Your task to perform on an android device: toggle translation in the chrome app Image 0: 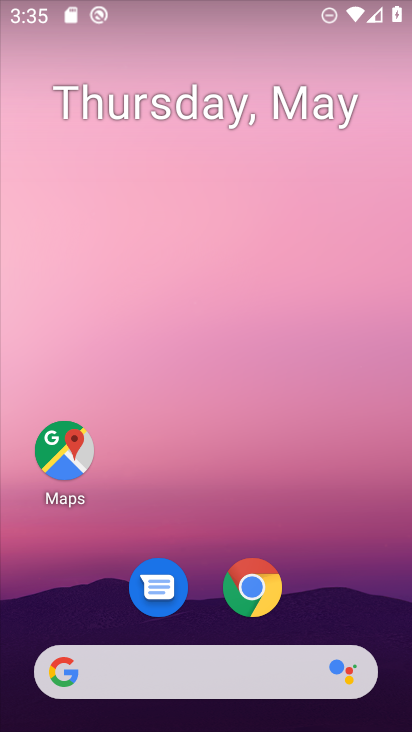
Step 0: drag from (385, 608) to (375, 202)
Your task to perform on an android device: toggle translation in the chrome app Image 1: 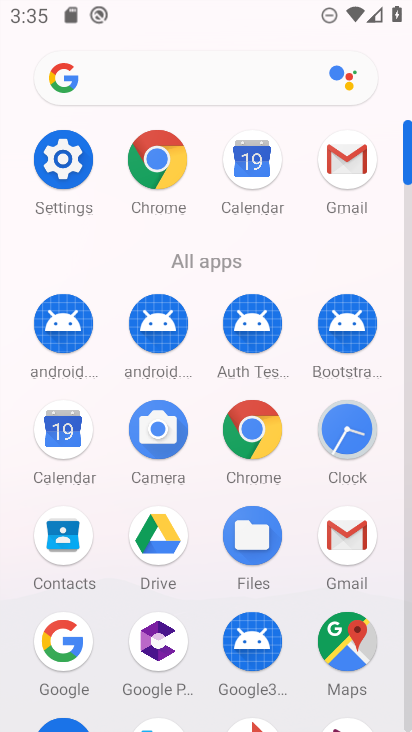
Step 1: click (253, 444)
Your task to perform on an android device: toggle translation in the chrome app Image 2: 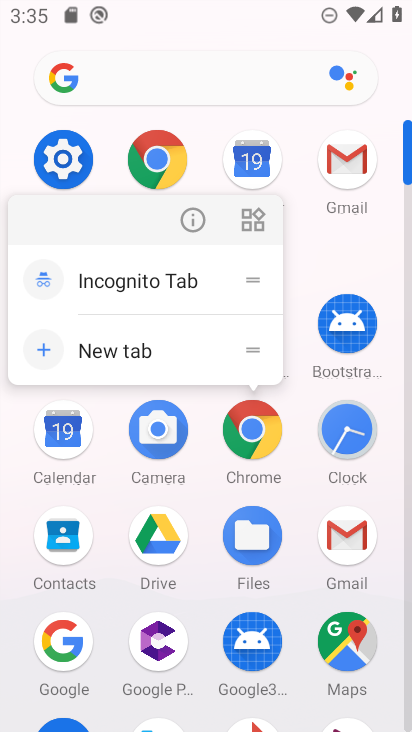
Step 2: click (253, 444)
Your task to perform on an android device: toggle translation in the chrome app Image 3: 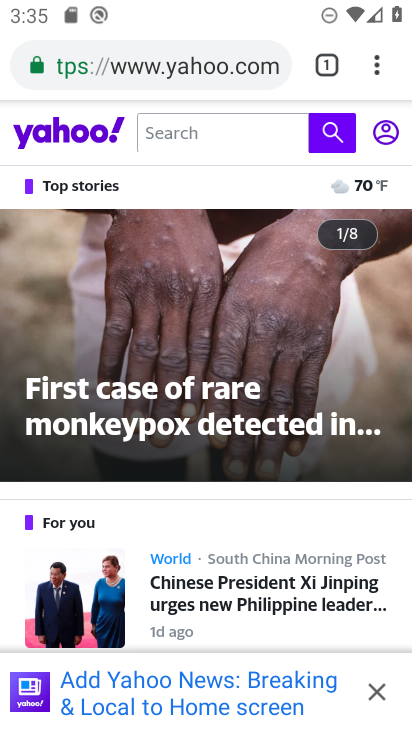
Step 3: click (374, 73)
Your task to perform on an android device: toggle translation in the chrome app Image 4: 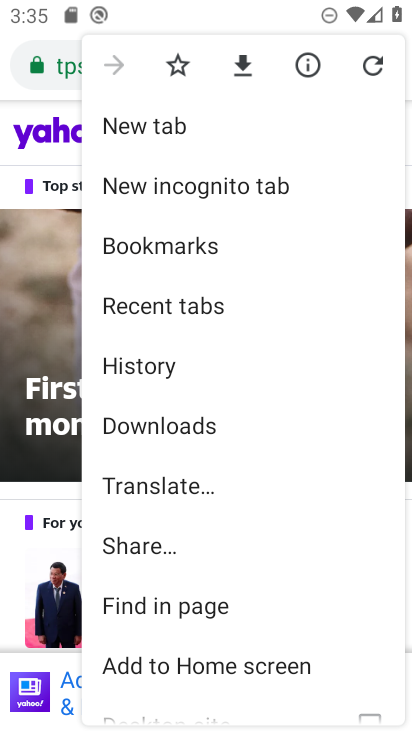
Step 4: drag from (341, 528) to (348, 411)
Your task to perform on an android device: toggle translation in the chrome app Image 5: 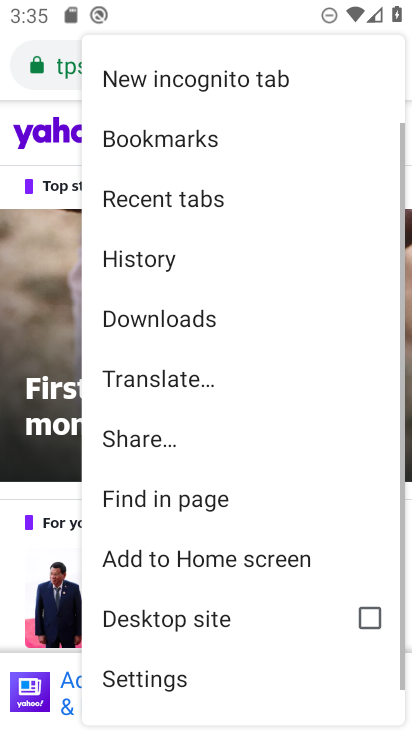
Step 5: drag from (316, 622) to (333, 472)
Your task to perform on an android device: toggle translation in the chrome app Image 6: 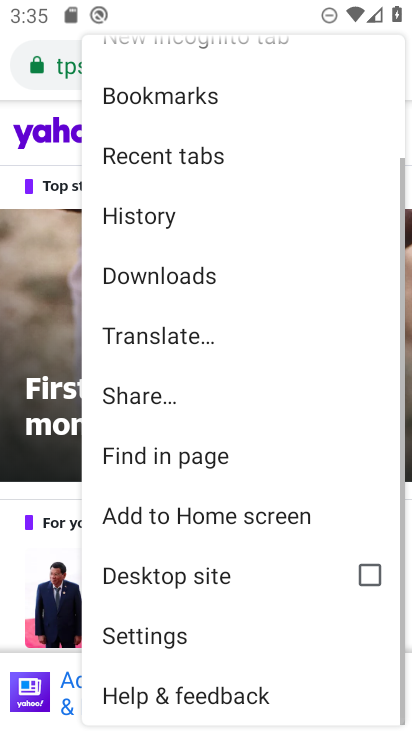
Step 6: click (229, 637)
Your task to perform on an android device: toggle translation in the chrome app Image 7: 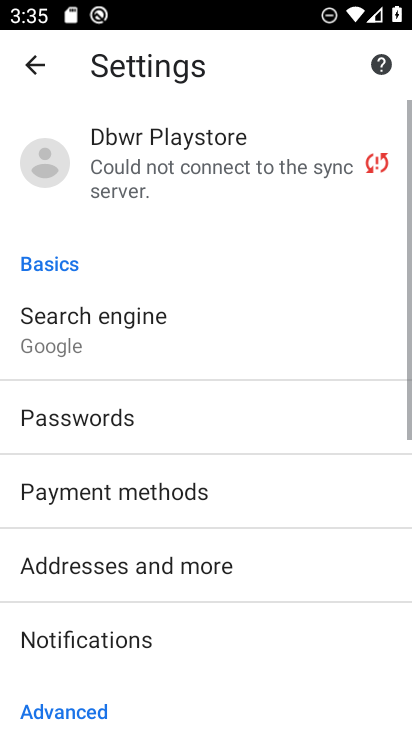
Step 7: drag from (274, 642) to (289, 473)
Your task to perform on an android device: toggle translation in the chrome app Image 8: 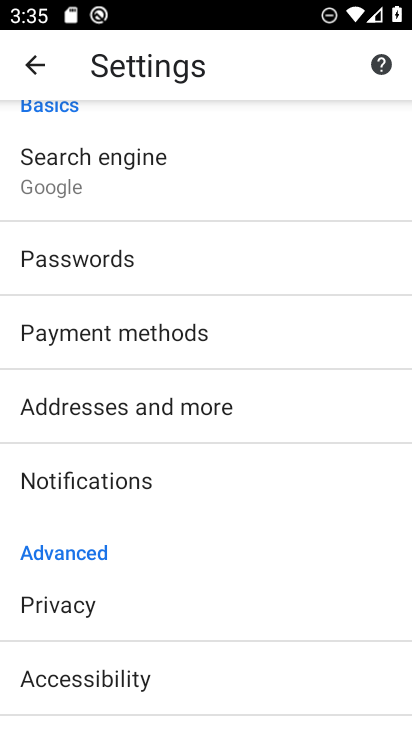
Step 8: drag from (281, 637) to (287, 480)
Your task to perform on an android device: toggle translation in the chrome app Image 9: 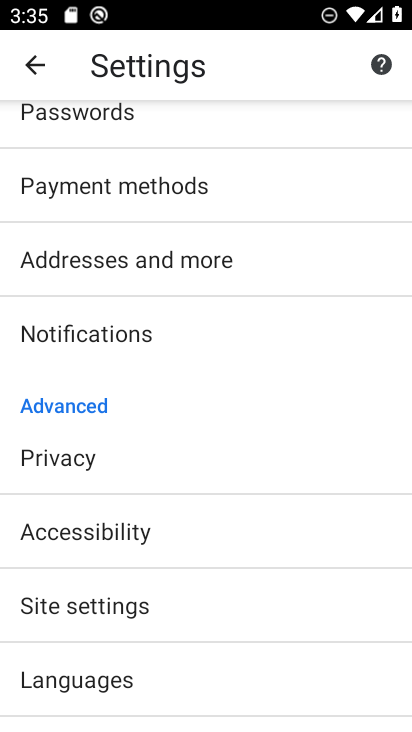
Step 9: drag from (279, 631) to (276, 526)
Your task to perform on an android device: toggle translation in the chrome app Image 10: 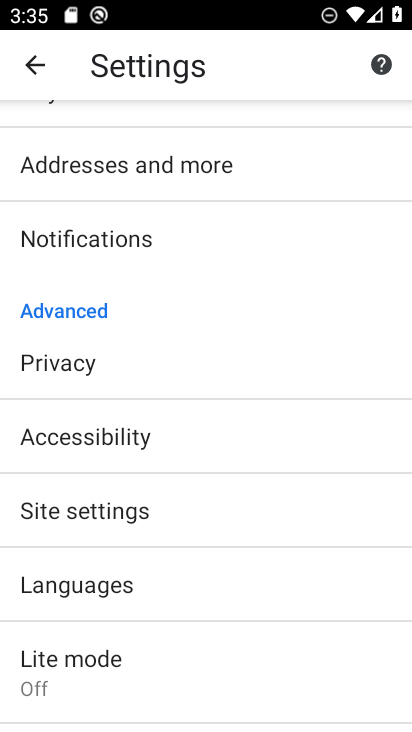
Step 10: drag from (274, 643) to (283, 541)
Your task to perform on an android device: toggle translation in the chrome app Image 11: 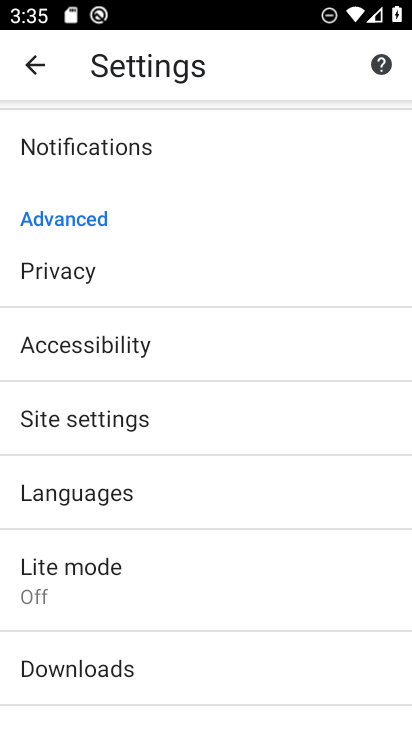
Step 11: drag from (295, 669) to (303, 553)
Your task to perform on an android device: toggle translation in the chrome app Image 12: 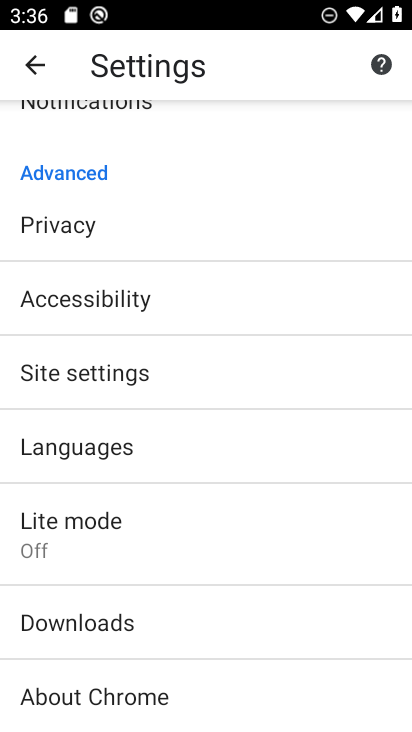
Step 12: drag from (305, 658) to (315, 471)
Your task to perform on an android device: toggle translation in the chrome app Image 13: 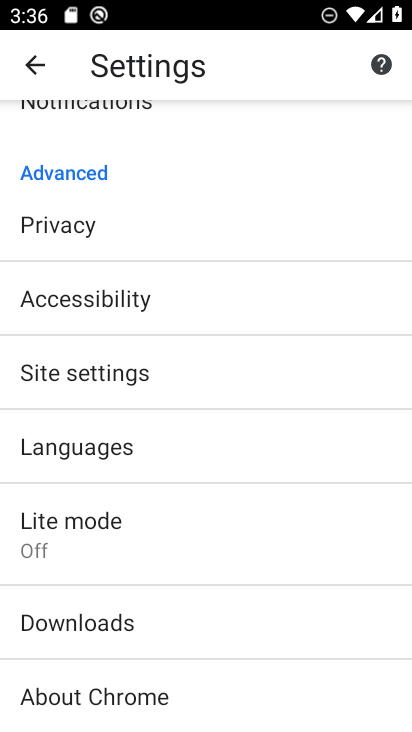
Step 13: drag from (348, 396) to (348, 495)
Your task to perform on an android device: toggle translation in the chrome app Image 14: 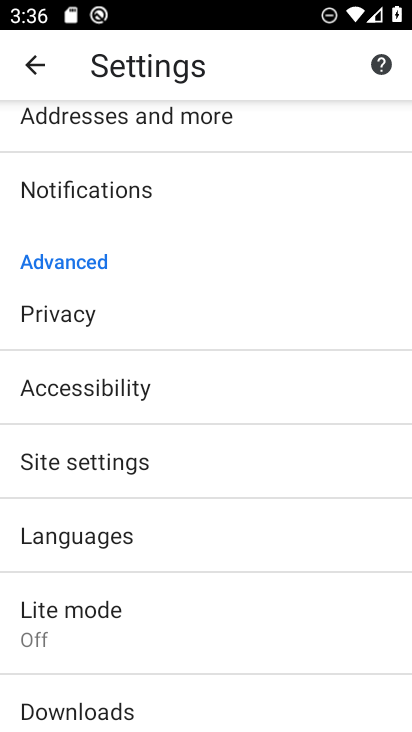
Step 14: drag from (343, 392) to (342, 511)
Your task to perform on an android device: toggle translation in the chrome app Image 15: 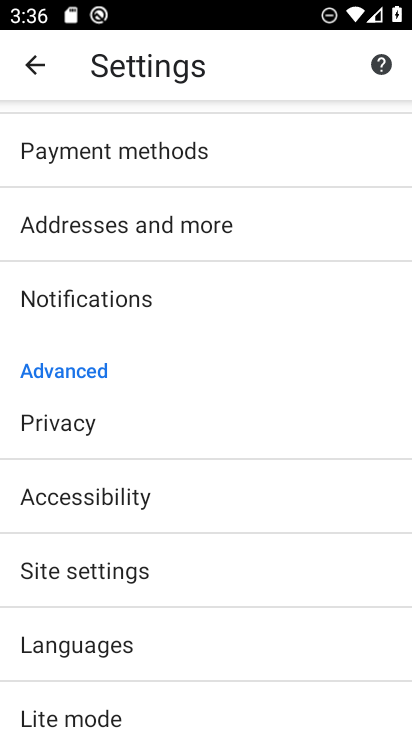
Step 15: drag from (324, 401) to (320, 485)
Your task to perform on an android device: toggle translation in the chrome app Image 16: 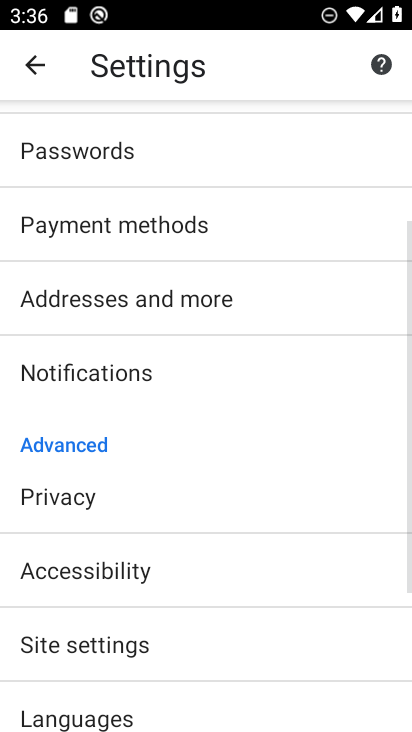
Step 16: drag from (319, 418) to (319, 512)
Your task to perform on an android device: toggle translation in the chrome app Image 17: 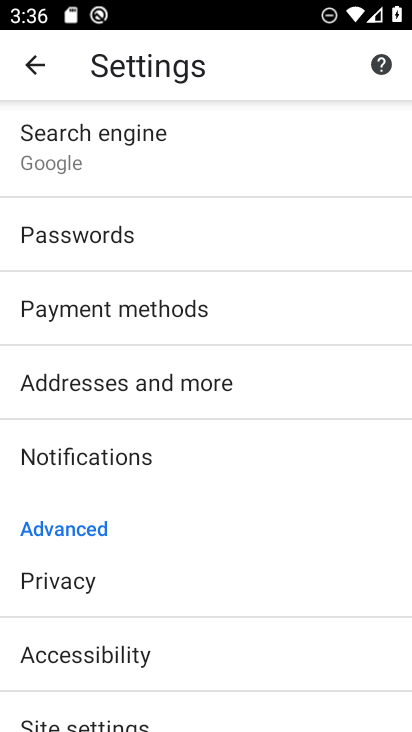
Step 17: drag from (310, 434) to (299, 504)
Your task to perform on an android device: toggle translation in the chrome app Image 18: 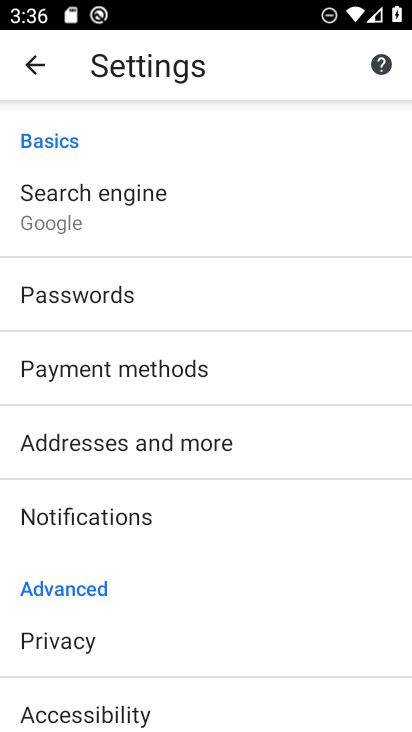
Step 18: drag from (286, 604) to (293, 475)
Your task to perform on an android device: toggle translation in the chrome app Image 19: 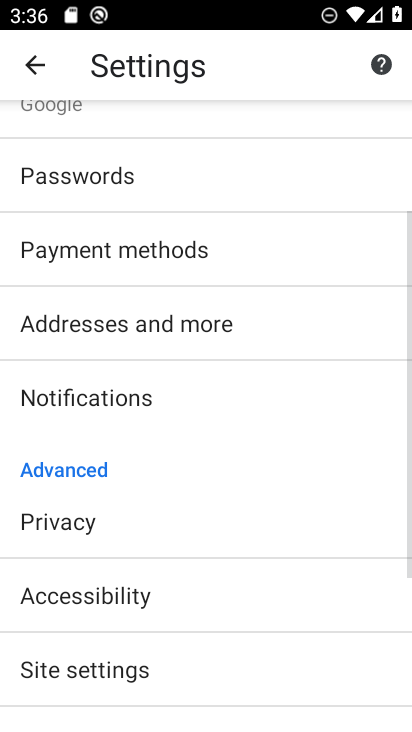
Step 19: drag from (286, 633) to (297, 510)
Your task to perform on an android device: toggle translation in the chrome app Image 20: 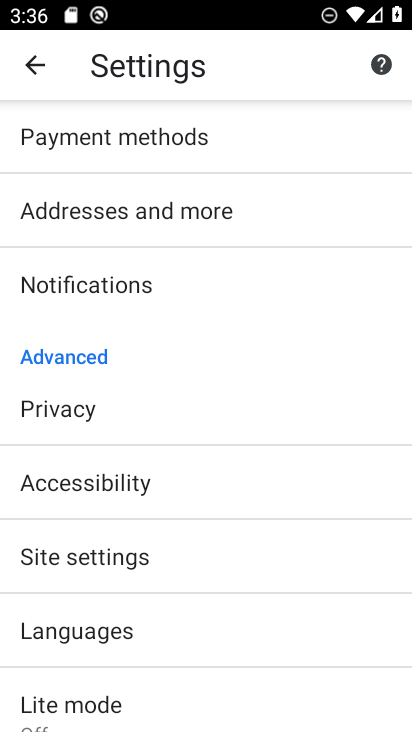
Step 20: click (253, 623)
Your task to perform on an android device: toggle translation in the chrome app Image 21: 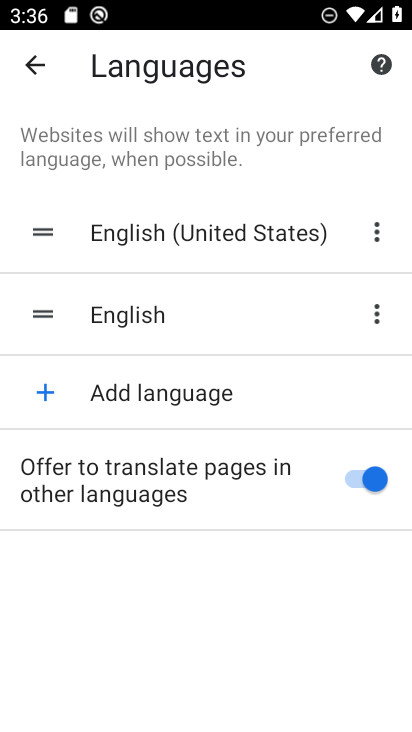
Step 21: click (354, 477)
Your task to perform on an android device: toggle translation in the chrome app Image 22: 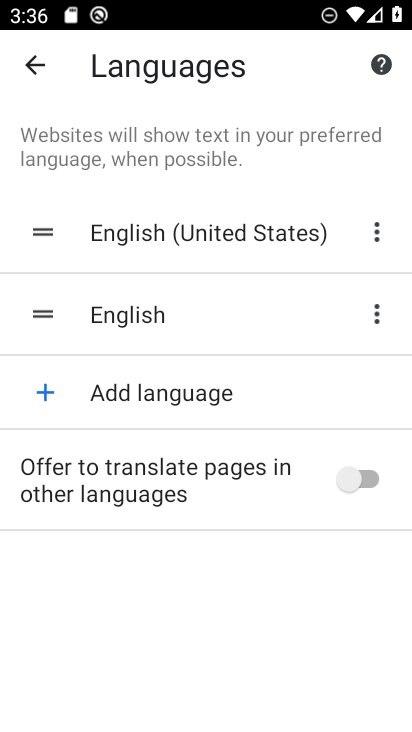
Step 22: task complete